Your task to perform on an android device: Go to internet settings Image 0: 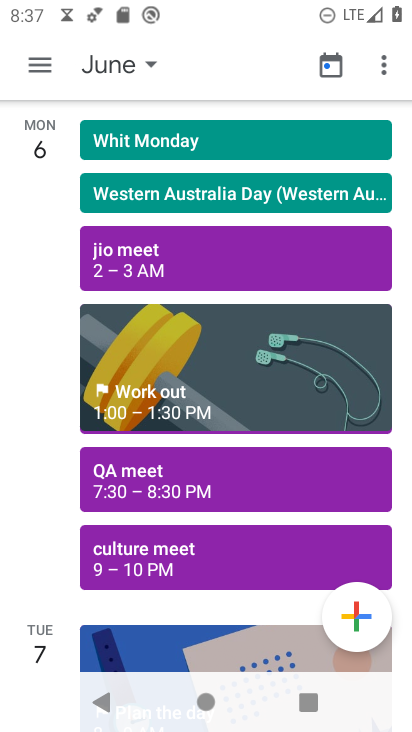
Step 0: press home button
Your task to perform on an android device: Go to internet settings Image 1: 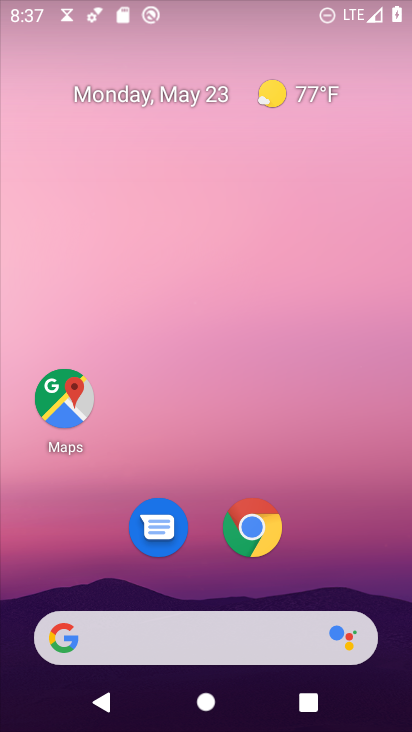
Step 1: drag from (283, 688) to (260, 118)
Your task to perform on an android device: Go to internet settings Image 2: 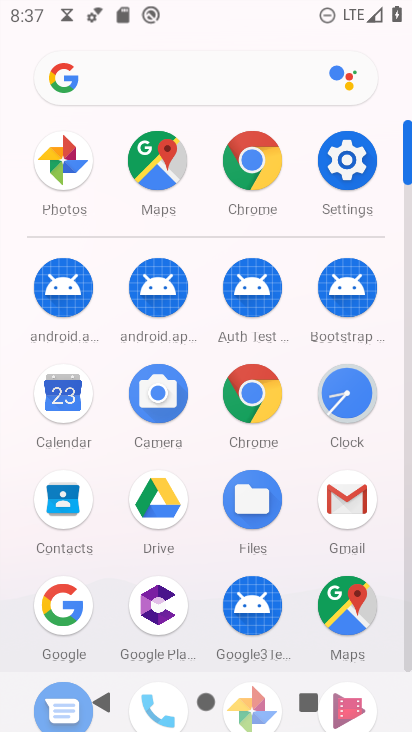
Step 2: click (354, 172)
Your task to perform on an android device: Go to internet settings Image 3: 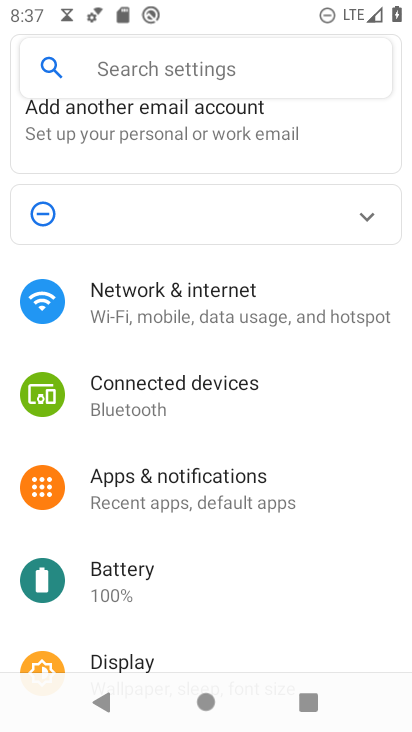
Step 3: click (206, 302)
Your task to perform on an android device: Go to internet settings Image 4: 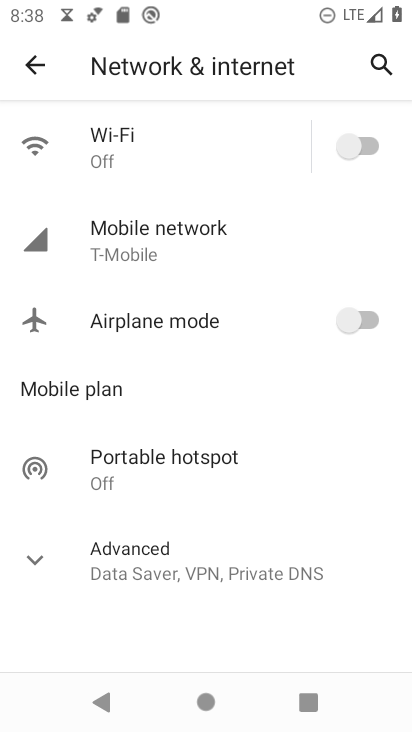
Step 4: click (42, 73)
Your task to perform on an android device: Go to internet settings Image 5: 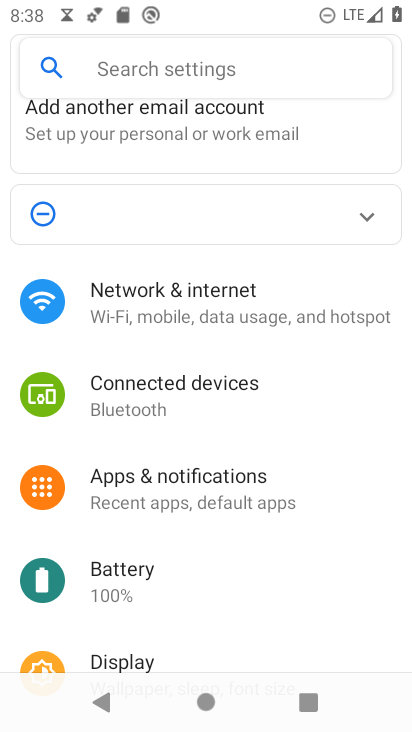
Step 5: click (186, 297)
Your task to perform on an android device: Go to internet settings Image 6: 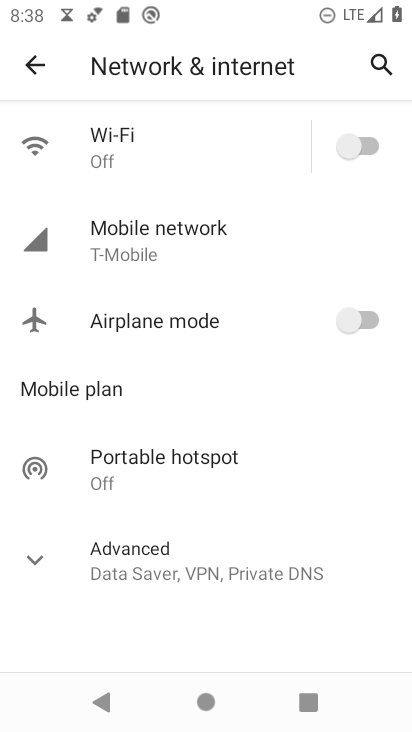
Step 6: task complete